Your task to perform on an android device: allow cookies in the chrome app Image 0: 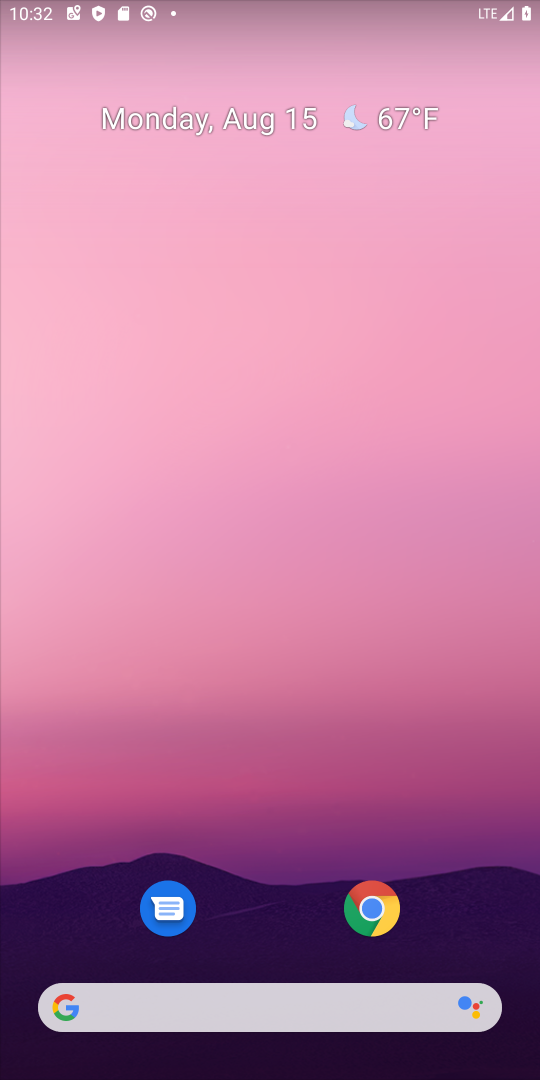
Step 0: click (359, 890)
Your task to perform on an android device: allow cookies in the chrome app Image 1: 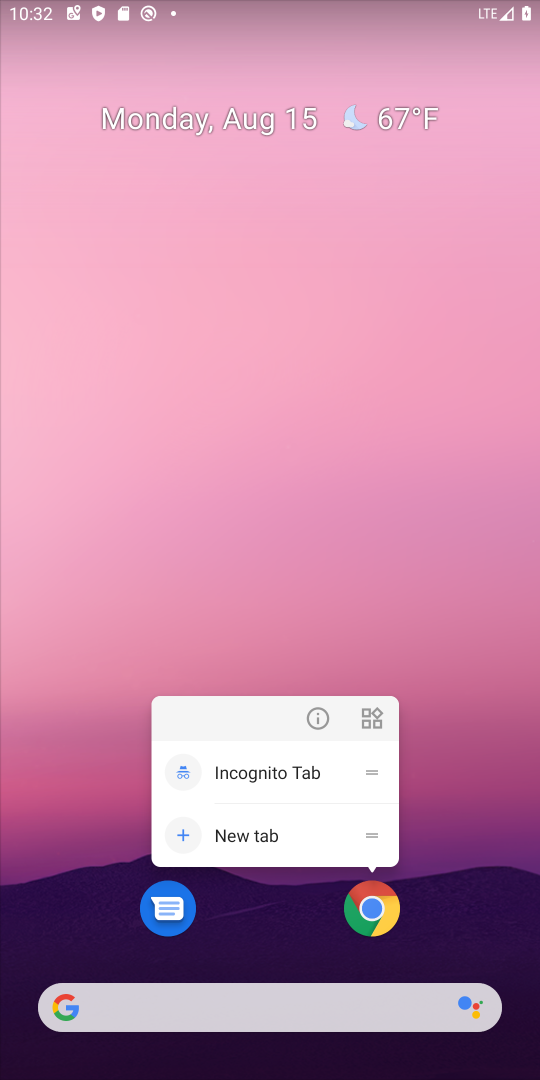
Step 1: click (373, 915)
Your task to perform on an android device: allow cookies in the chrome app Image 2: 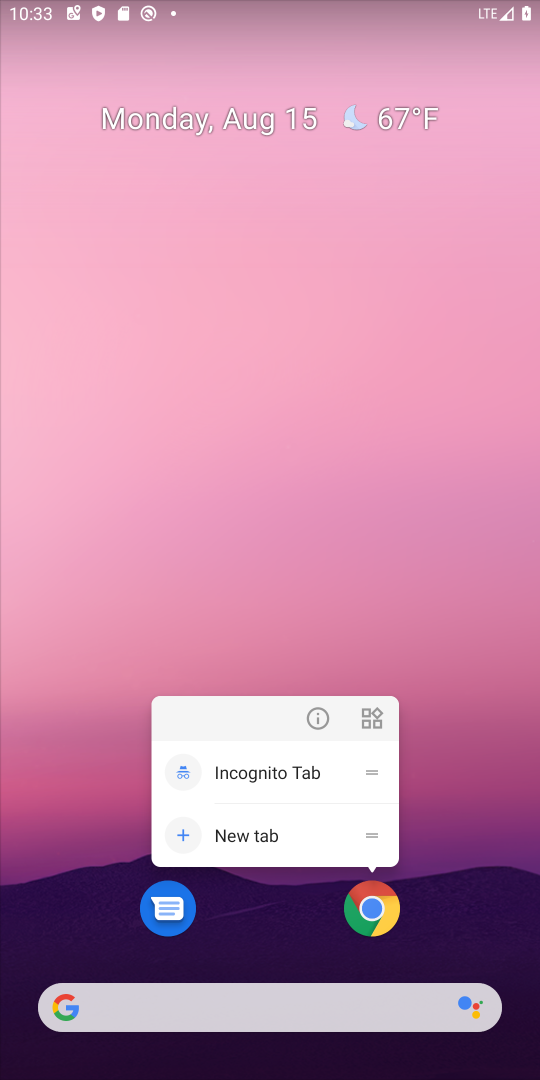
Step 2: click (373, 915)
Your task to perform on an android device: allow cookies in the chrome app Image 3: 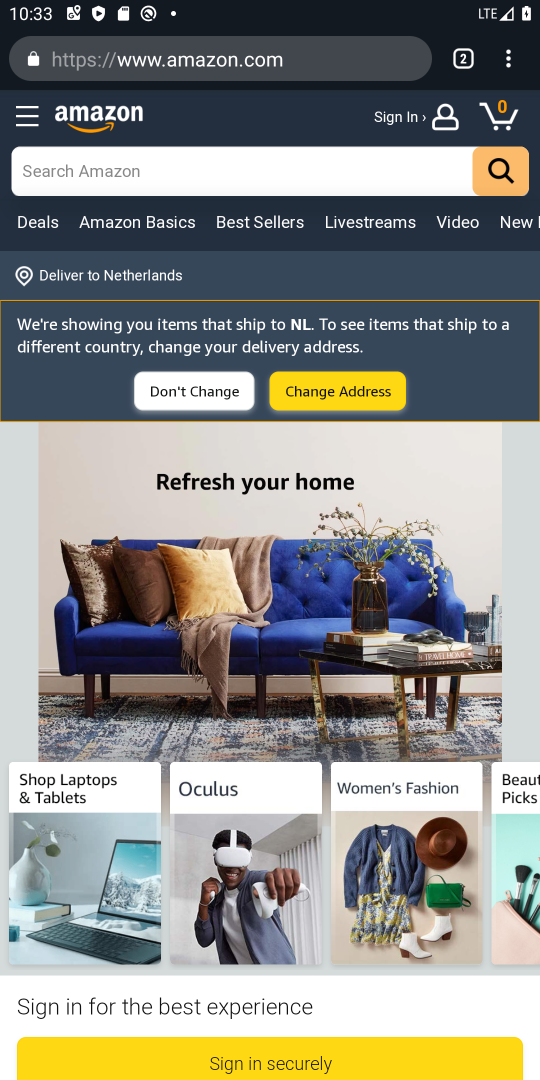
Step 3: click (522, 68)
Your task to perform on an android device: allow cookies in the chrome app Image 4: 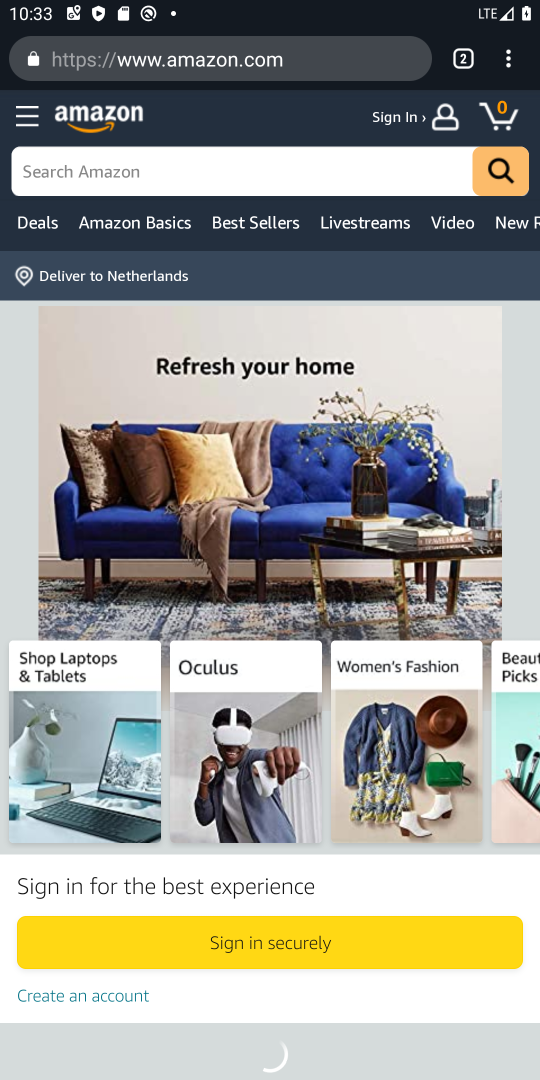
Step 4: click (518, 59)
Your task to perform on an android device: allow cookies in the chrome app Image 5: 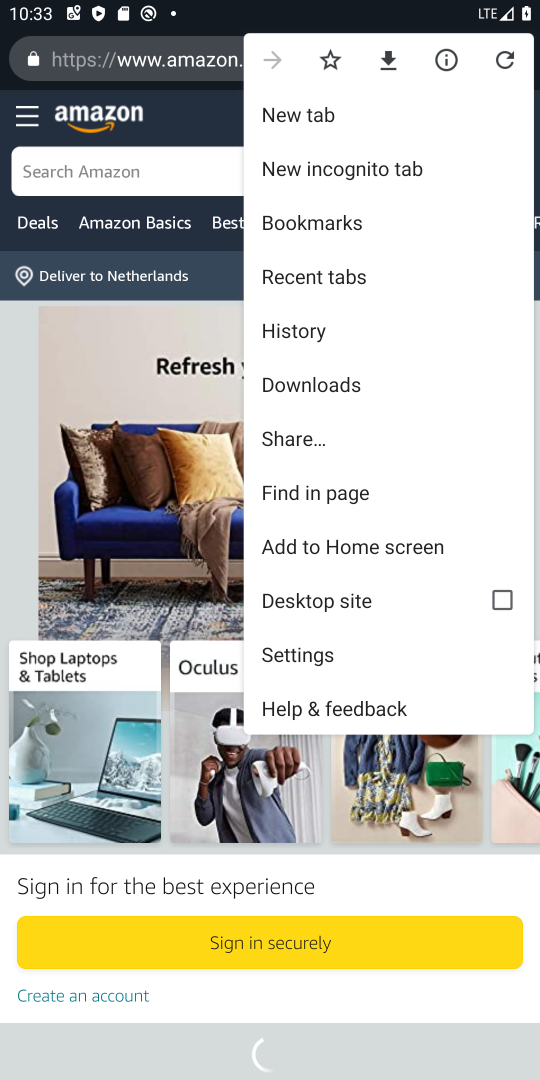
Step 5: click (304, 649)
Your task to perform on an android device: allow cookies in the chrome app Image 6: 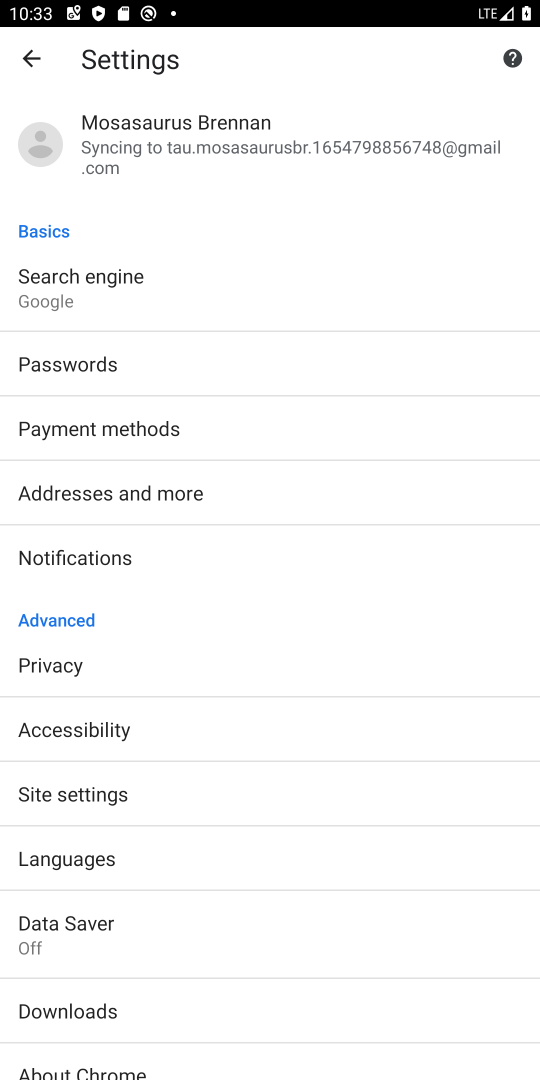
Step 6: click (165, 812)
Your task to perform on an android device: allow cookies in the chrome app Image 7: 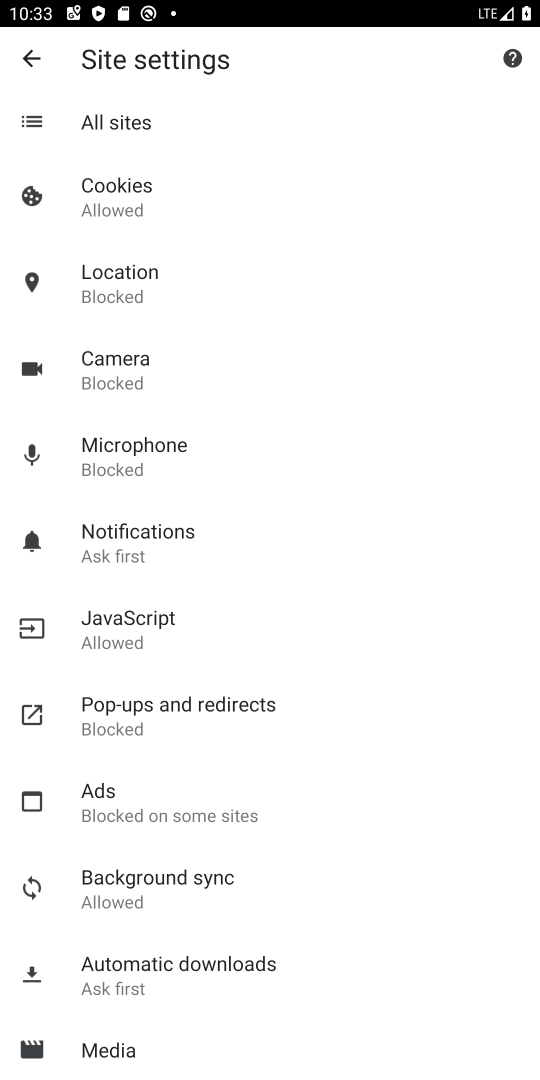
Step 7: click (190, 201)
Your task to perform on an android device: allow cookies in the chrome app Image 8: 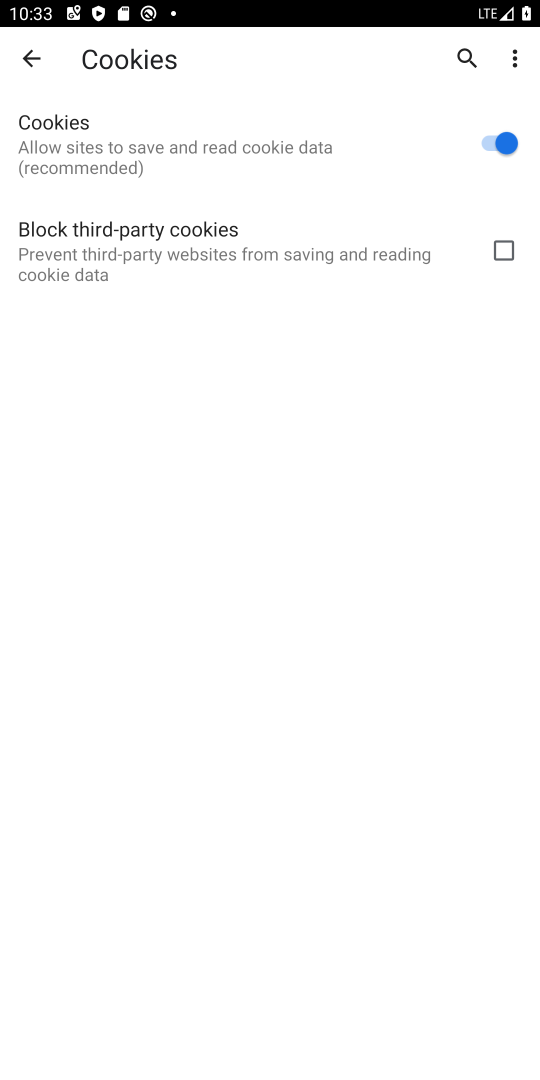
Step 8: task complete